Your task to perform on an android device: create a new album in the google photos Image 0: 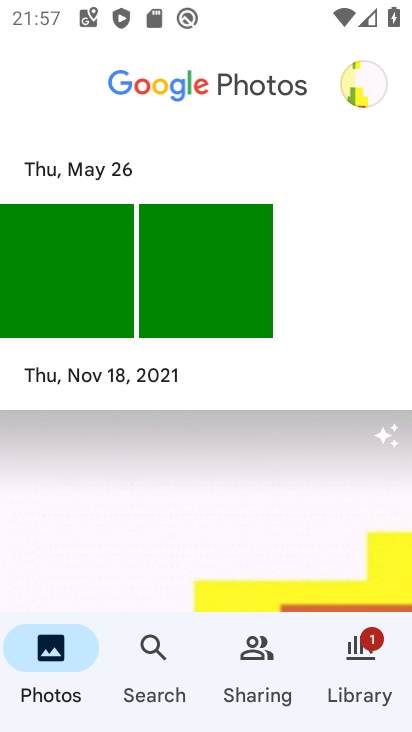
Step 0: press home button
Your task to perform on an android device: create a new album in the google photos Image 1: 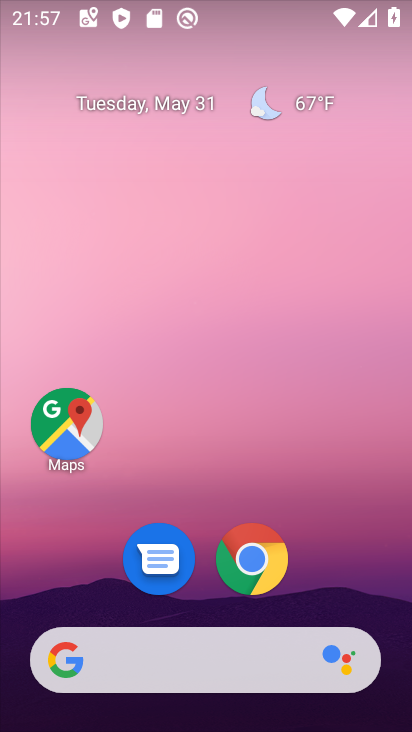
Step 1: drag from (321, 582) to (332, 59)
Your task to perform on an android device: create a new album in the google photos Image 2: 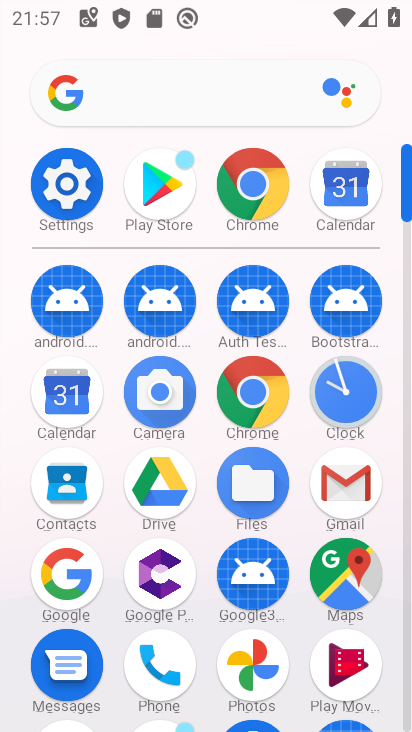
Step 2: click (245, 660)
Your task to perform on an android device: create a new album in the google photos Image 3: 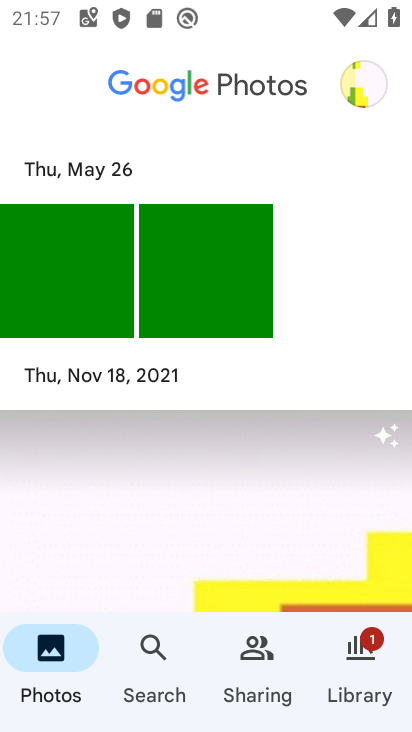
Step 3: click (361, 672)
Your task to perform on an android device: create a new album in the google photos Image 4: 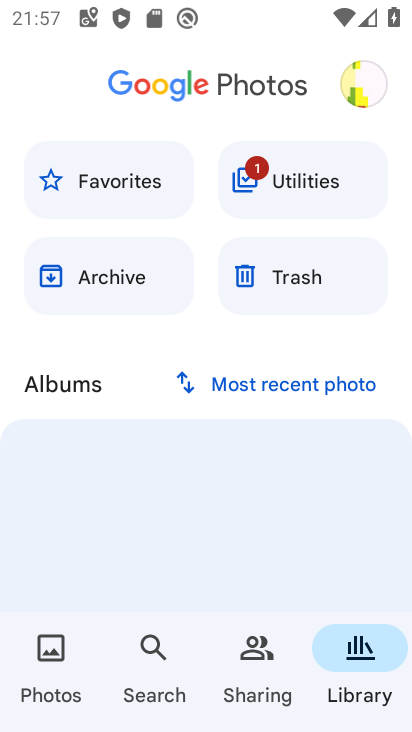
Step 4: drag from (139, 356) to (213, 87)
Your task to perform on an android device: create a new album in the google photos Image 5: 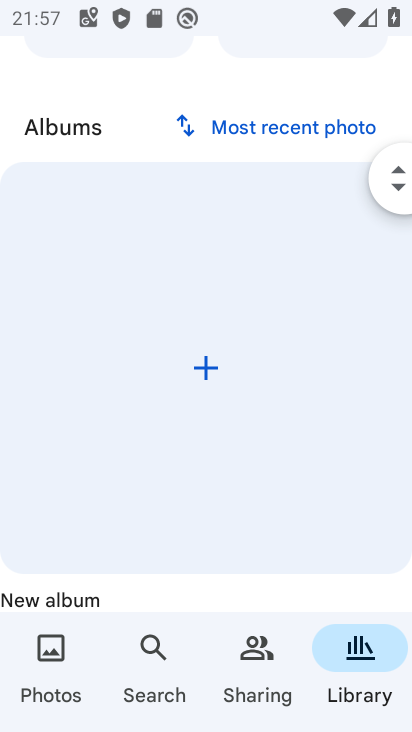
Step 5: click (228, 374)
Your task to perform on an android device: create a new album in the google photos Image 6: 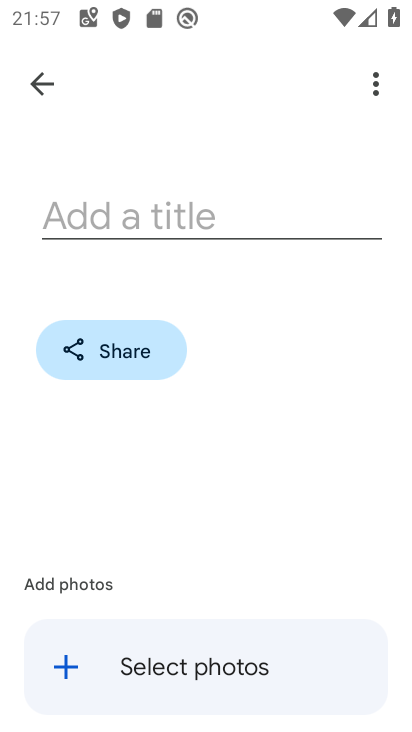
Step 6: click (206, 224)
Your task to perform on an android device: create a new album in the google photos Image 7: 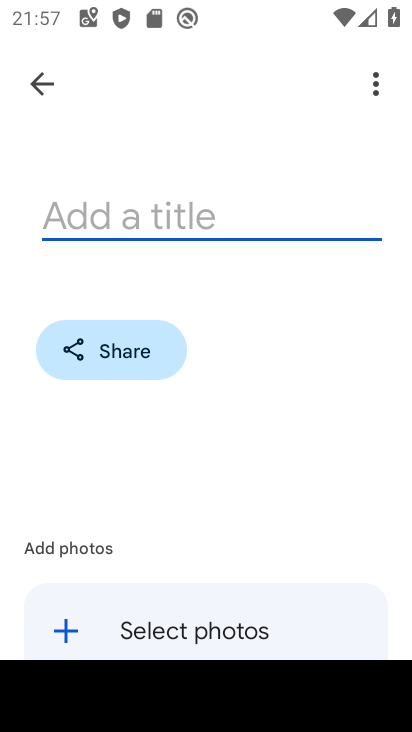
Step 7: type "yjttu"
Your task to perform on an android device: create a new album in the google photos Image 8: 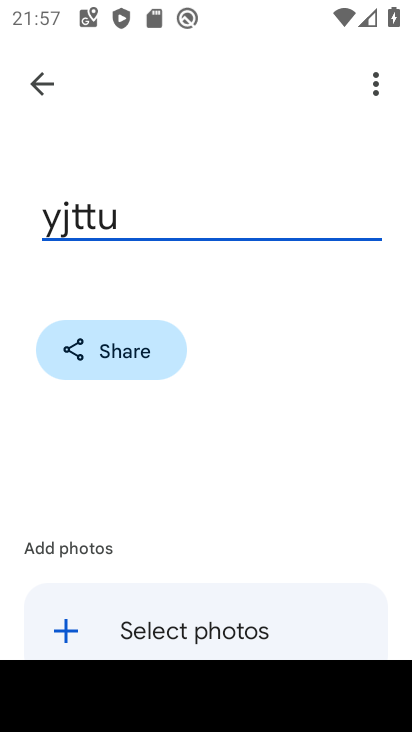
Step 8: click (69, 627)
Your task to perform on an android device: create a new album in the google photos Image 9: 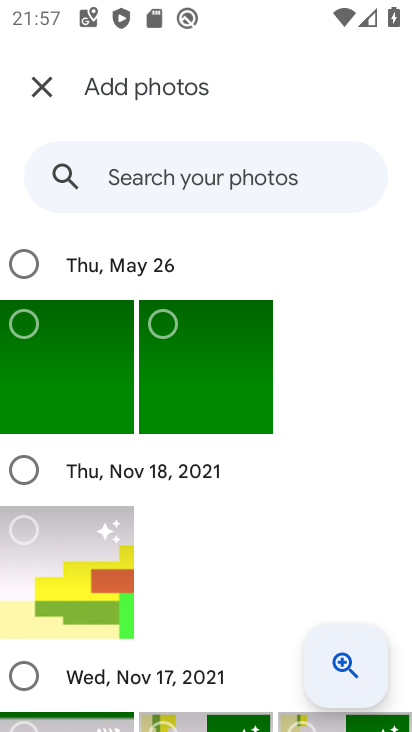
Step 9: click (27, 532)
Your task to perform on an android device: create a new album in the google photos Image 10: 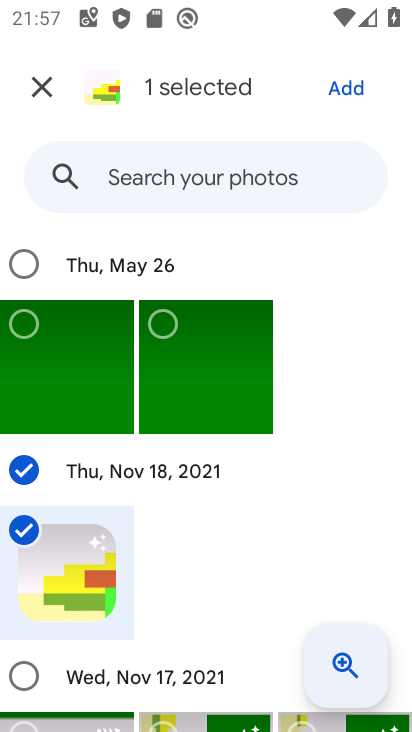
Step 10: click (359, 83)
Your task to perform on an android device: create a new album in the google photos Image 11: 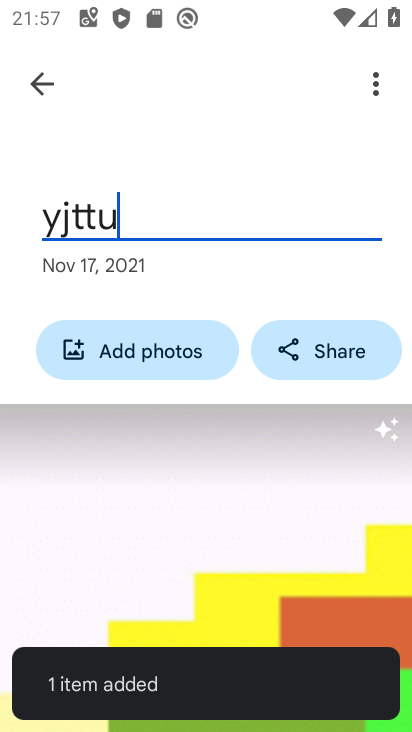
Step 11: task complete